Your task to perform on an android device: Open settings on Google Maps Image 0: 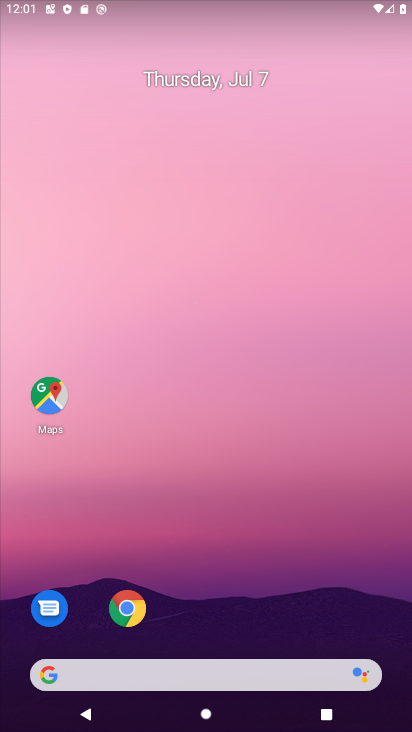
Step 0: drag from (203, 652) to (188, 239)
Your task to perform on an android device: Open settings on Google Maps Image 1: 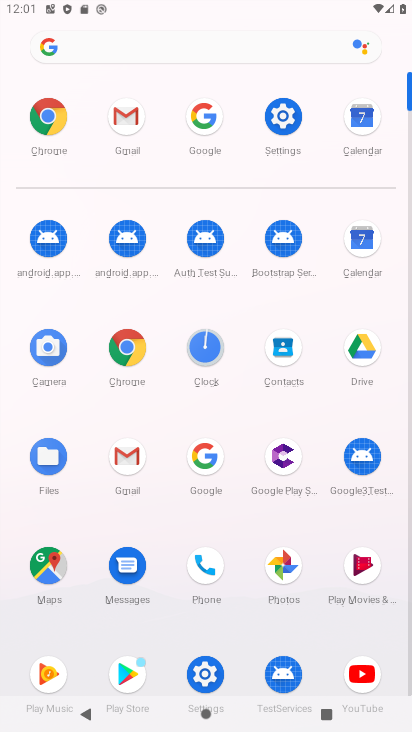
Step 1: click (288, 571)
Your task to perform on an android device: Open settings on Google Maps Image 2: 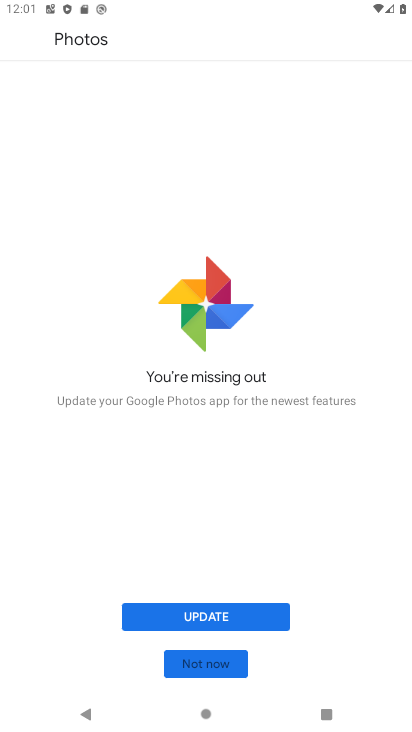
Step 2: click (213, 614)
Your task to perform on an android device: Open settings on Google Maps Image 3: 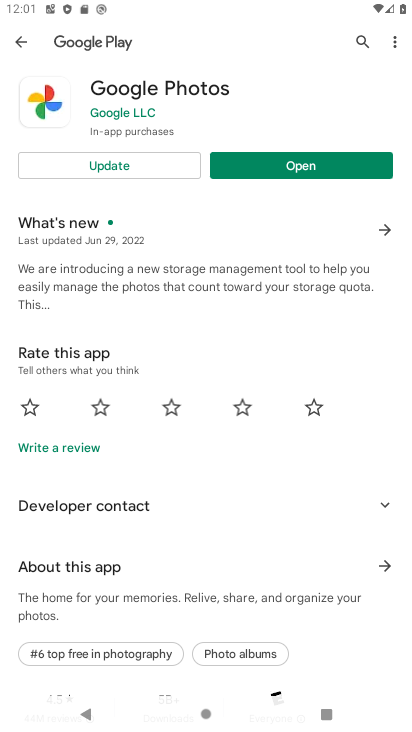
Step 3: click (291, 168)
Your task to perform on an android device: Open settings on Google Maps Image 4: 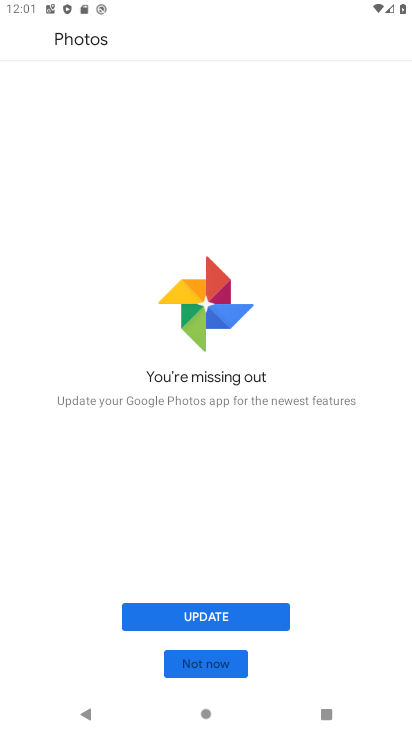
Step 4: click (212, 622)
Your task to perform on an android device: Open settings on Google Maps Image 5: 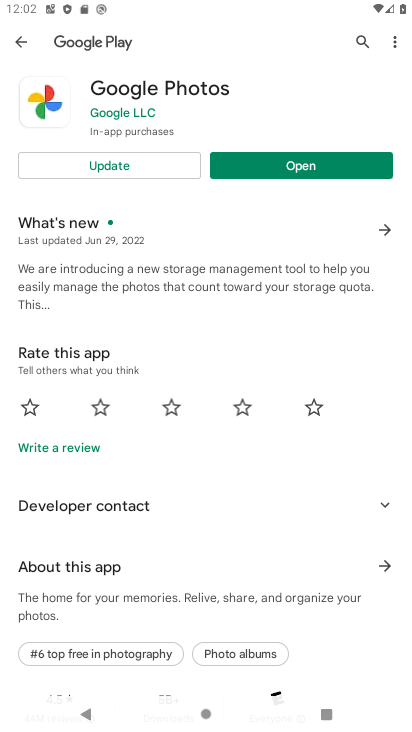
Step 5: click (126, 166)
Your task to perform on an android device: Open settings on Google Maps Image 6: 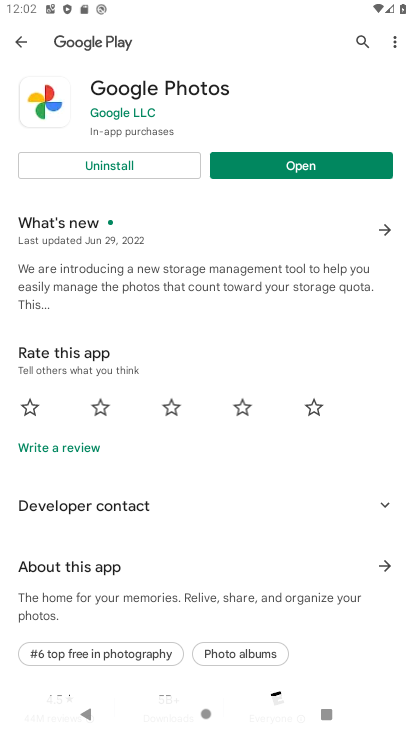
Step 6: click (274, 167)
Your task to perform on an android device: Open settings on Google Maps Image 7: 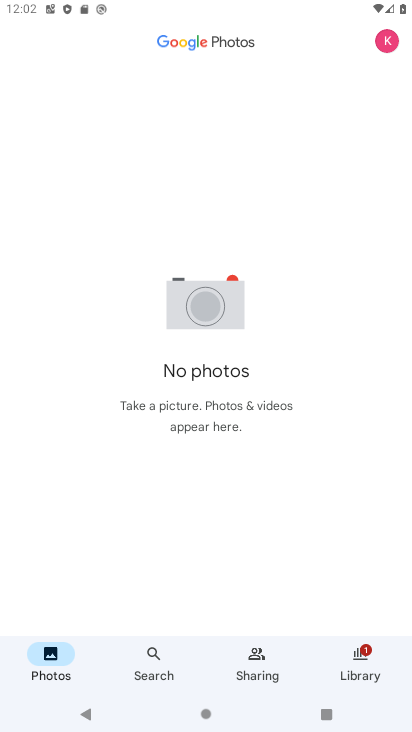
Step 7: click (390, 45)
Your task to perform on an android device: Open settings on Google Maps Image 8: 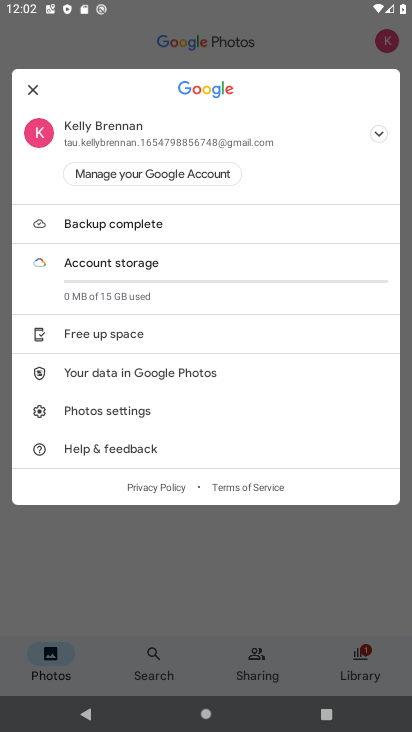
Step 8: click (78, 409)
Your task to perform on an android device: Open settings on Google Maps Image 9: 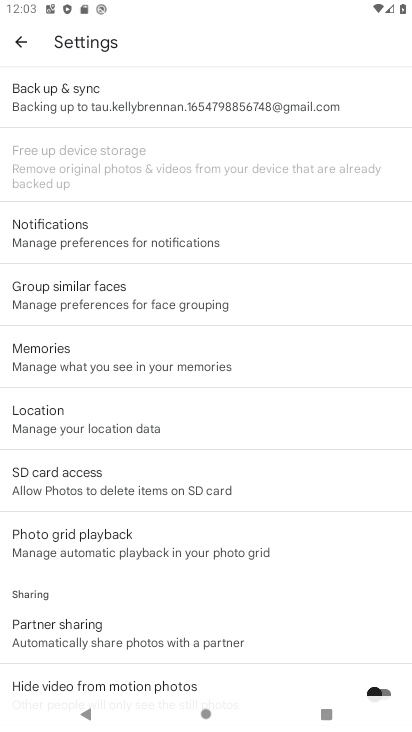
Step 9: task complete